Your task to perform on an android device: When is my next appointment? Image 0: 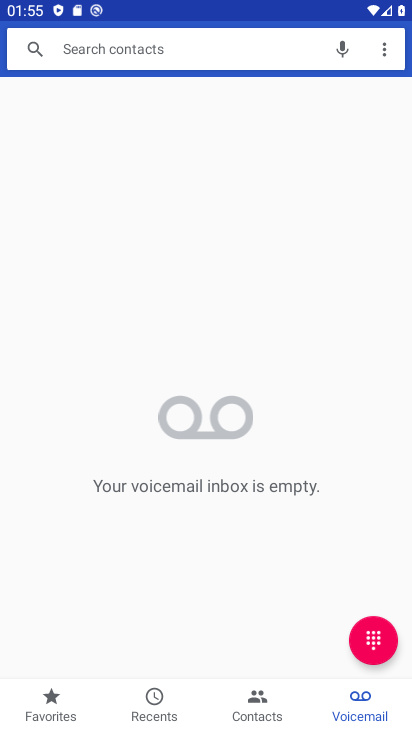
Step 0: drag from (309, 599) to (295, 149)
Your task to perform on an android device: When is my next appointment? Image 1: 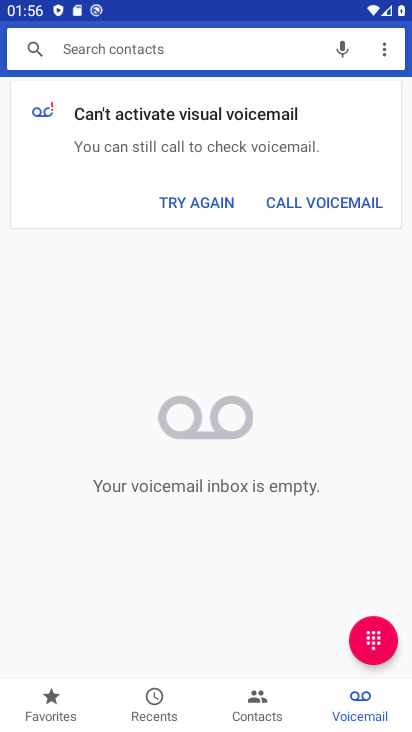
Step 1: press home button
Your task to perform on an android device: When is my next appointment? Image 2: 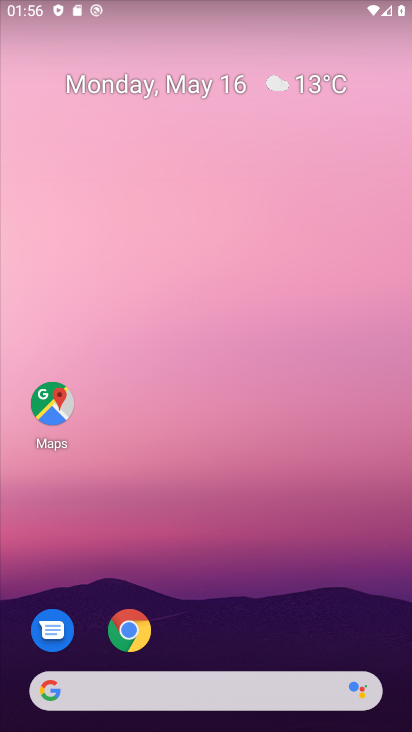
Step 2: drag from (340, 593) to (296, 216)
Your task to perform on an android device: When is my next appointment? Image 3: 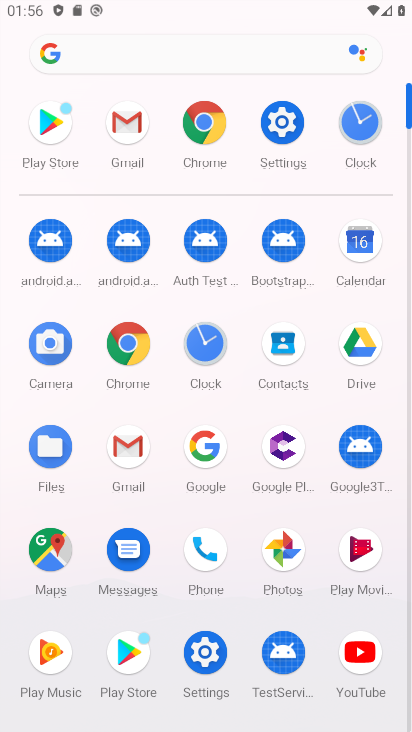
Step 3: click (369, 253)
Your task to perform on an android device: When is my next appointment? Image 4: 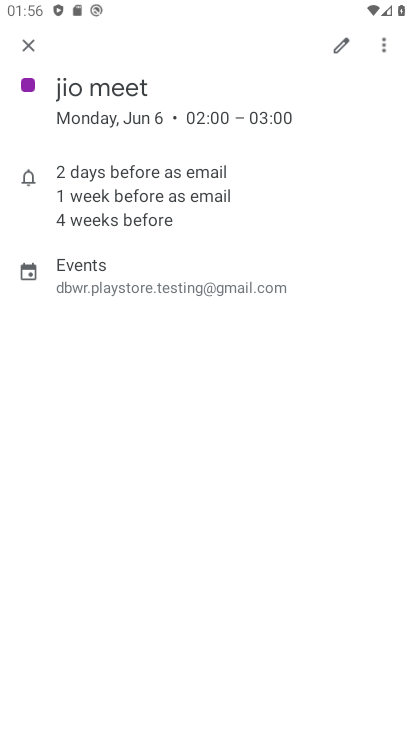
Step 4: task complete